Your task to perform on an android device: turn off sleep mode Image 0: 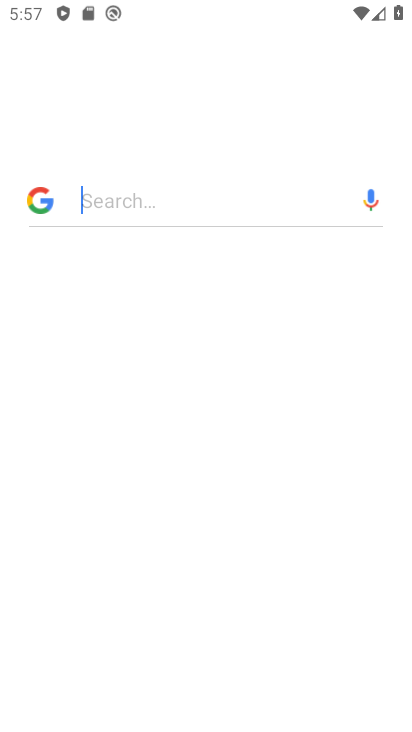
Step 0: click (254, 632)
Your task to perform on an android device: turn off sleep mode Image 1: 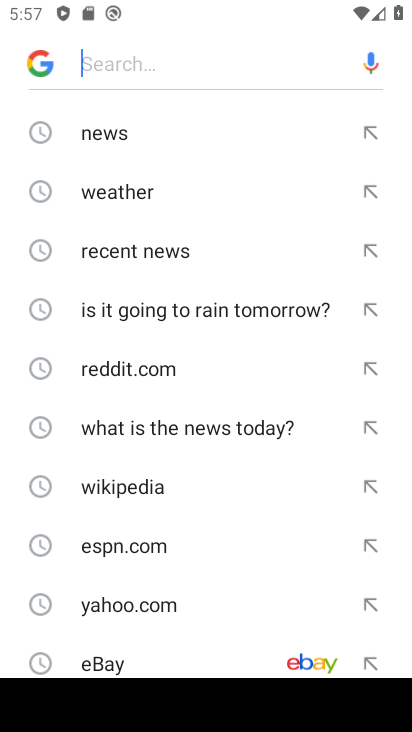
Step 1: press home button
Your task to perform on an android device: turn off sleep mode Image 2: 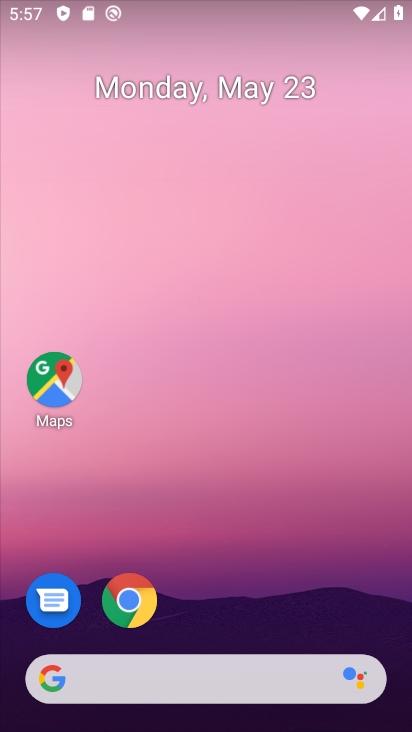
Step 2: drag from (251, 595) to (221, 244)
Your task to perform on an android device: turn off sleep mode Image 3: 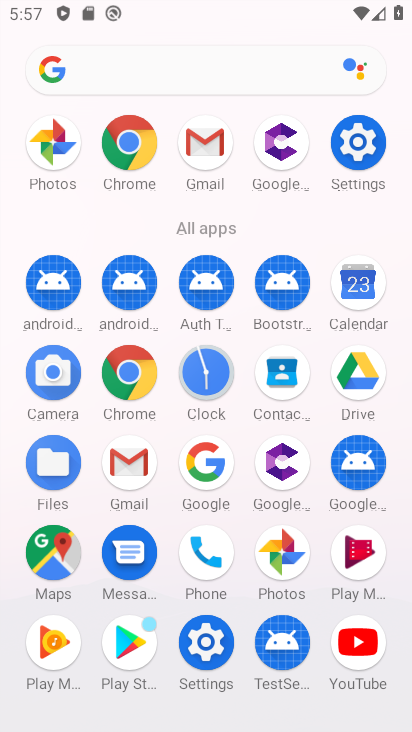
Step 3: click (351, 160)
Your task to perform on an android device: turn off sleep mode Image 4: 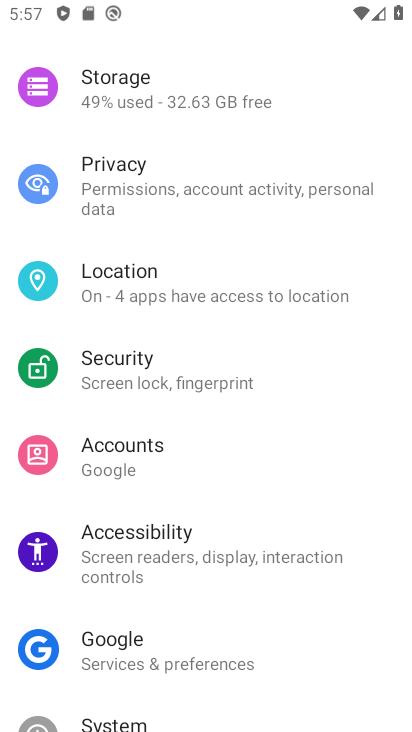
Step 4: task complete